Your task to perform on an android device: Open sound settings Image 0: 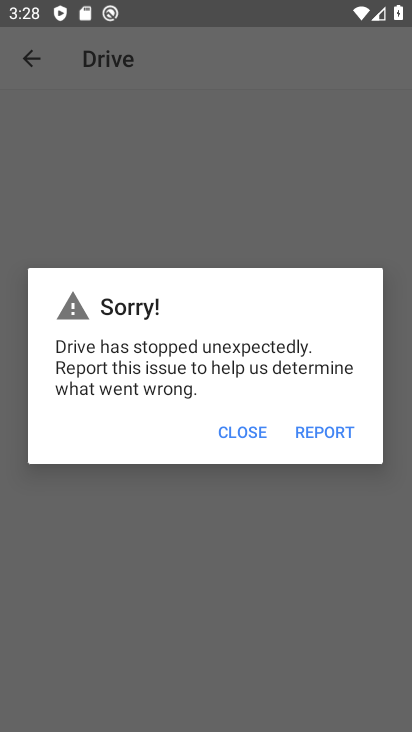
Step 0: press home button
Your task to perform on an android device: Open sound settings Image 1: 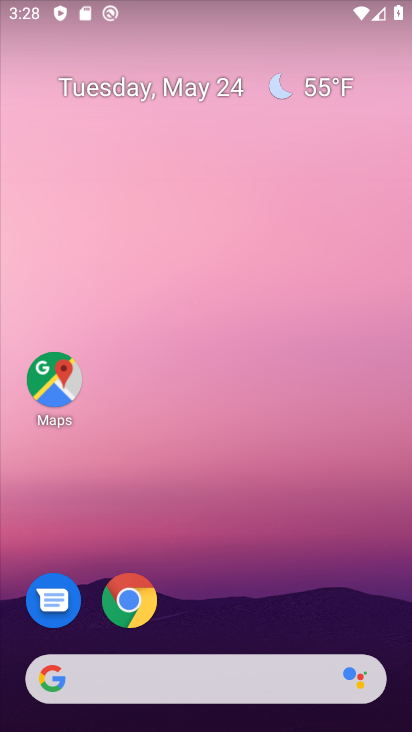
Step 1: drag from (203, 666) to (206, 148)
Your task to perform on an android device: Open sound settings Image 2: 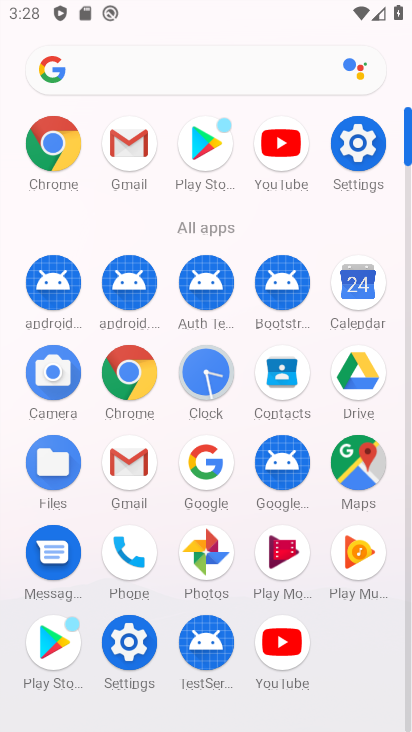
Step 2: click (359, 150)
Your task to perform on an android device: Open sound settings Image 3: 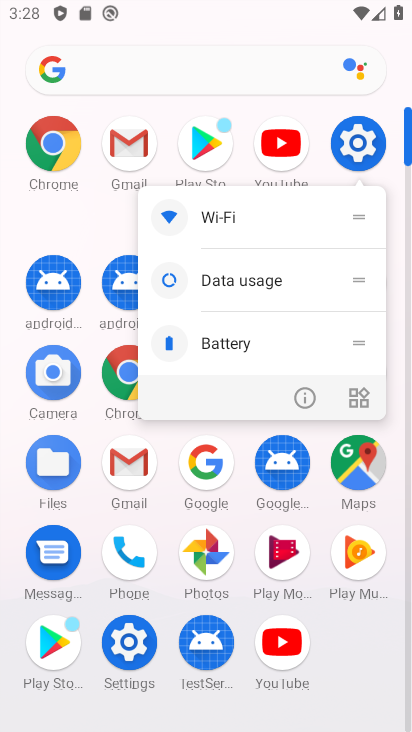
Step 3: click (359, 150)
Your task to perform on an android device: Open sound settings Image 4: 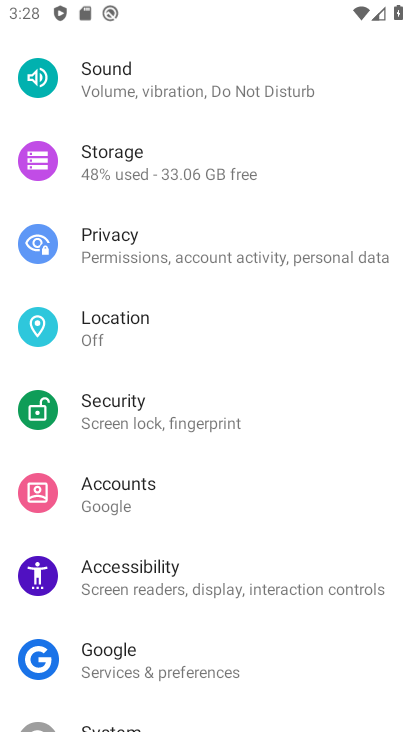
Step 4: click (144, 83)
Your task to perform on an android device: Open sound settings Image 5: 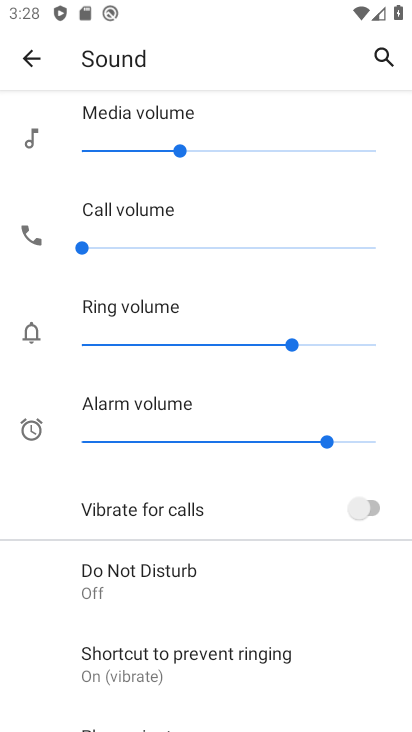
Step 5: task complete